Your task to perform on an android device: Clear all items from cart on bestbuy. Search for "logitech g903" on bestbuy, select the first entry, add it to the cart, then select checkout. Image 0: 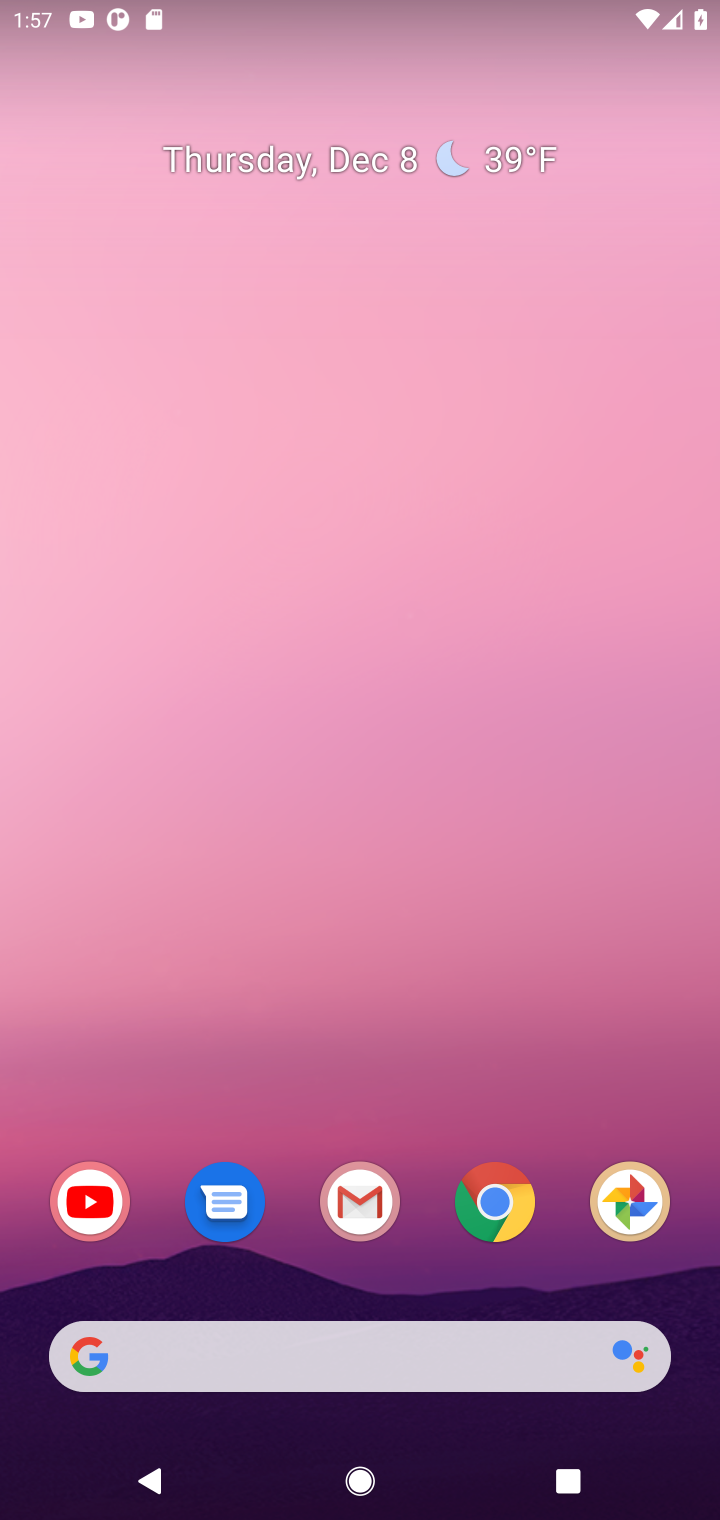
Step 0: click (509, 1190)
Your task to perform on an android device: Clear all items from cart on bestbuy. Search for "logitech g903" on bestbuy, select the first entry, add it to the cart, then select checkout. Image 1: 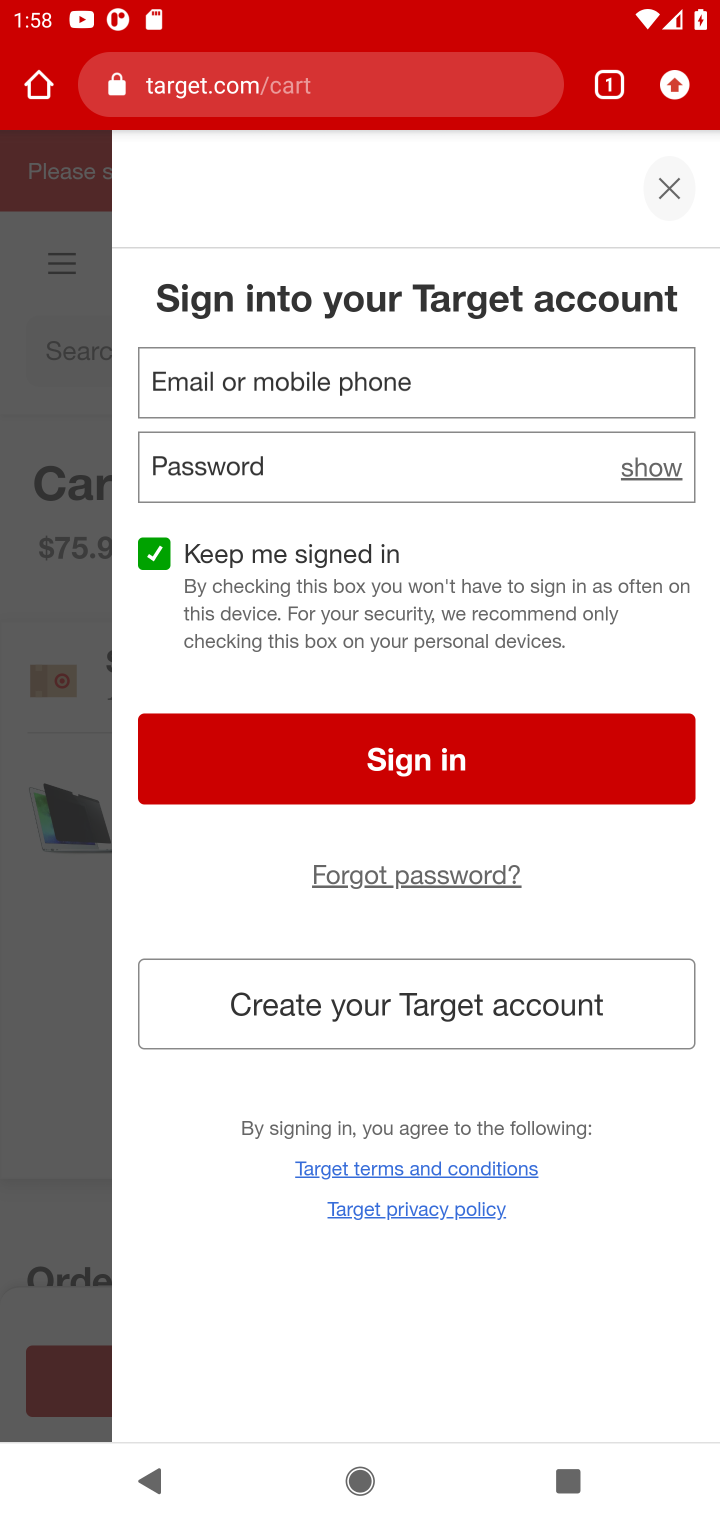
Step 1: click (36, 98)
Your task to perform on an android device: Clear all items from cart on bestbuy. Search for "logitech g903" on bestbuy, select the first entry, add it to the cart, then select checkout. Image 2: 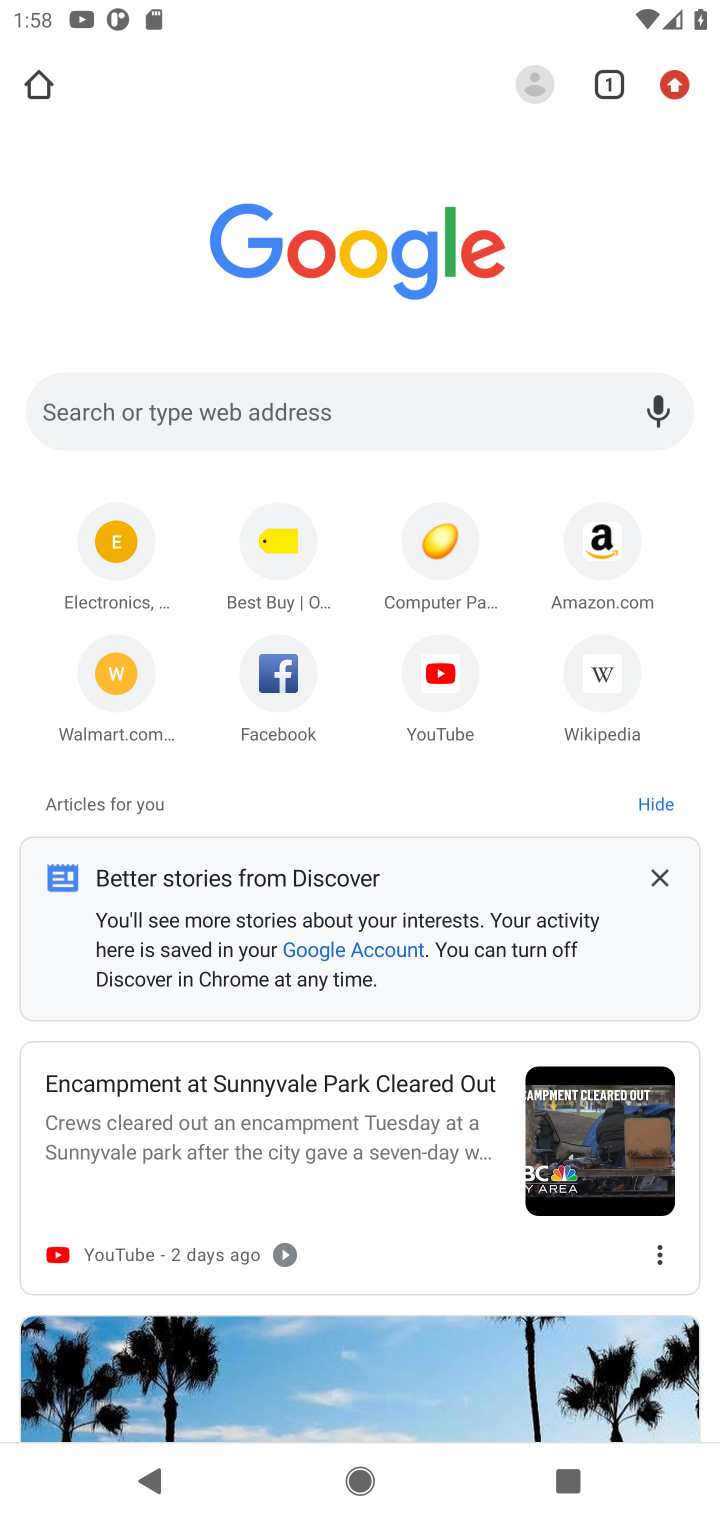
Step 2: click (273, 543)
Your task to perform on an android device: Clear all items from cart on bestbuy. Search for "logitech g903" on bestbuy, select the first entry, add it to the cart, then select checkout. Image 3: 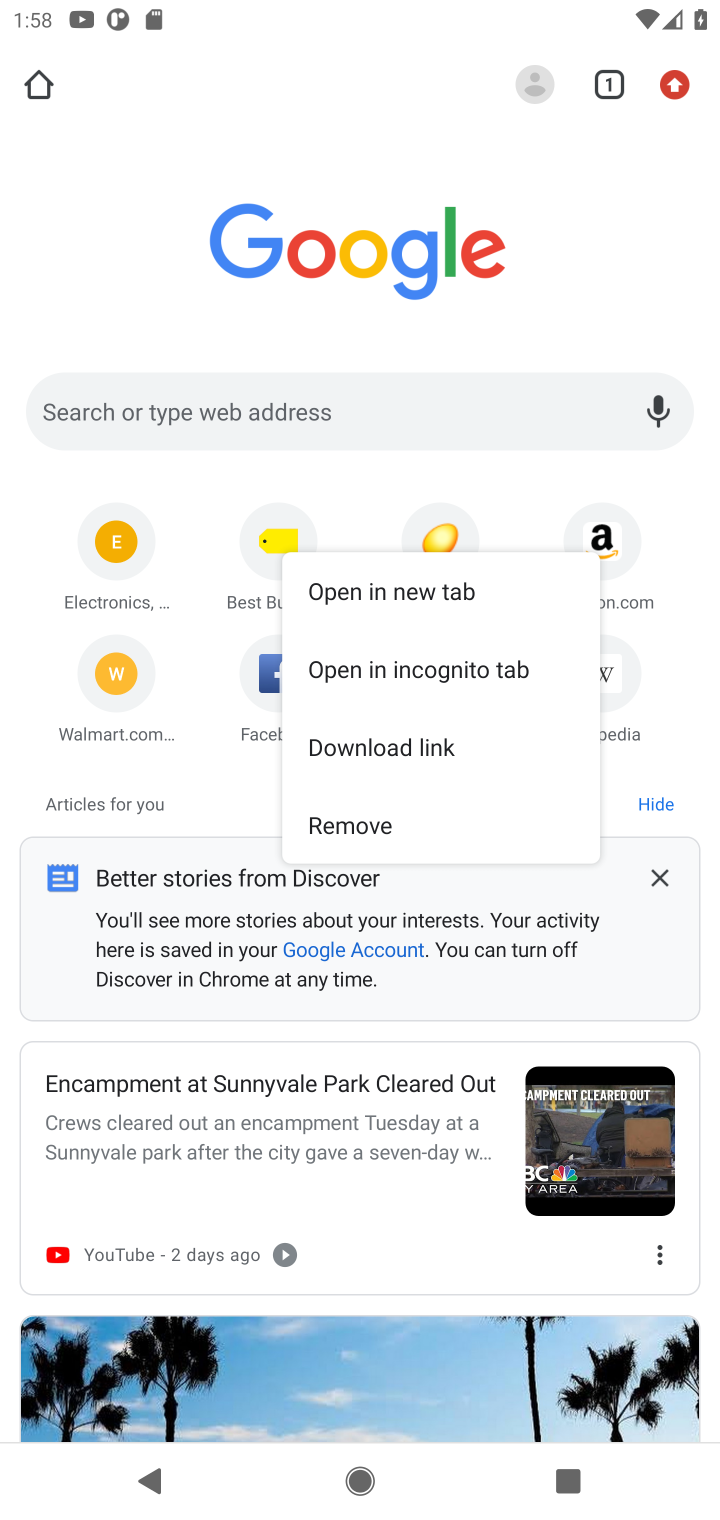
Step 3: click (281, 537)
Your task to perform on an android device: Clear all items from cart on bestbuy. Search for "logitech g903" on bestbuy, select the first entry, add it to the cart, then select checkout. Image 4: 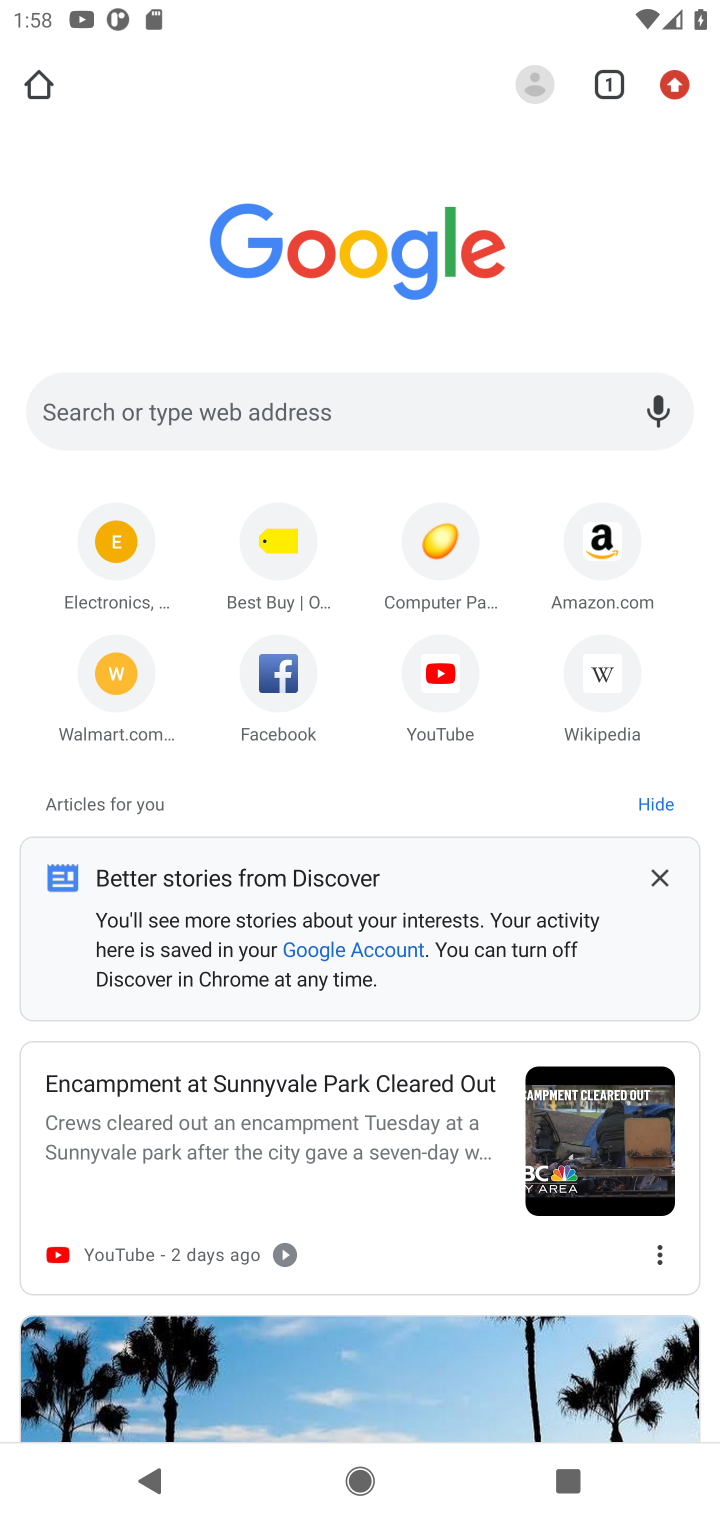
Step 4: click (279, 528)
Your task to perform on an android device: Clear all items from cart on bestbuy. Search for "logitech g903" on bestbuy, select the first entry, add it to the cart, then select checkout. Image 5: 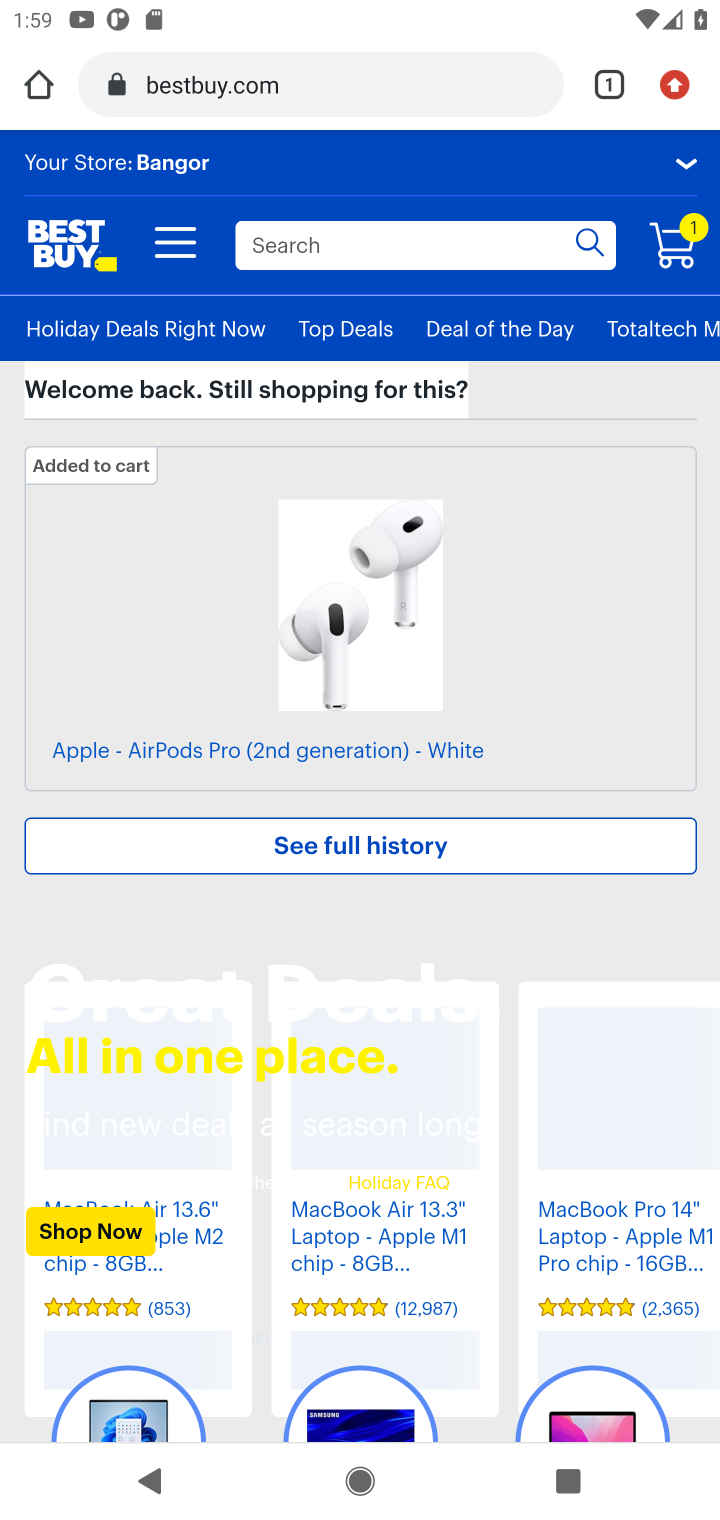
Step 5: click (664, 240)
Your task to perform on an android device: Clear all items from cart on bestbuy. Search for "logitech g903" on bestbuy, select the first entry, add it to the cart, then select checkout. Image 6: 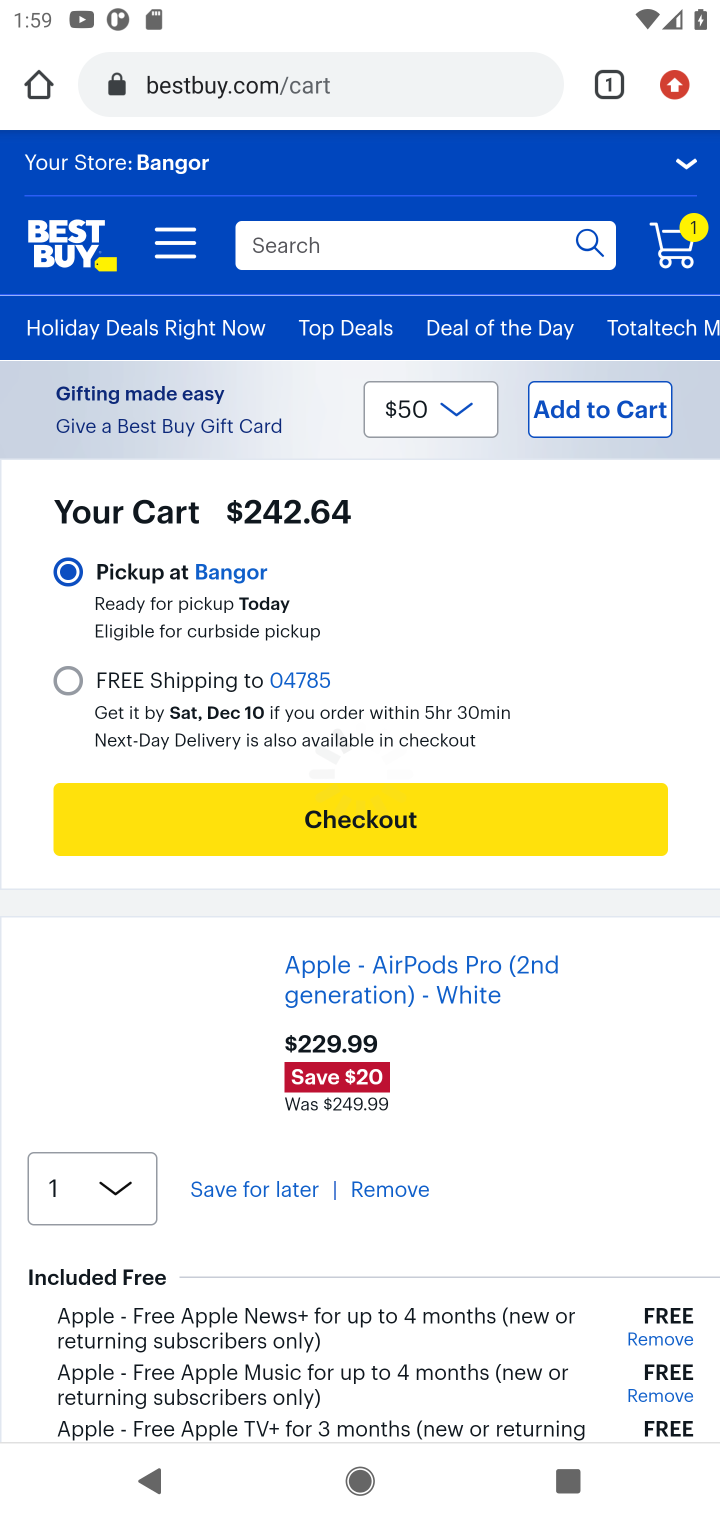
Step 6: click (673, 242)
Your task to perform on an android device: Clear all items from cart on bestbuy. Search for "logitech g903" on bestbuy, select the first entry, add it to the cart, then select checkout. Image 7: 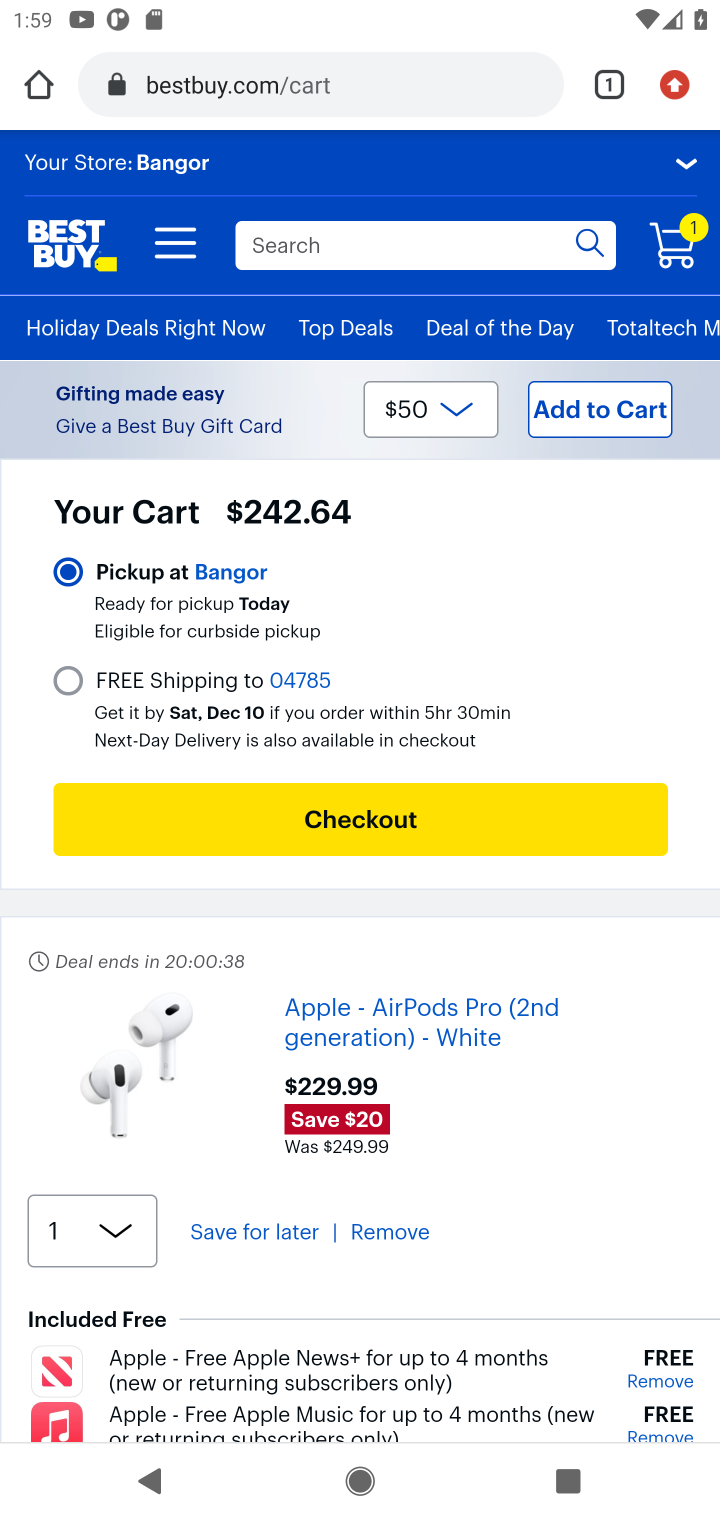
Step 7: click (389, 1228)
Your task to perform on an android device: Clear all items from cart on bestbuy. Search for "logitech g903" on bestbuy, select the first entry, add it to the cart, then select checkout. Image 8: 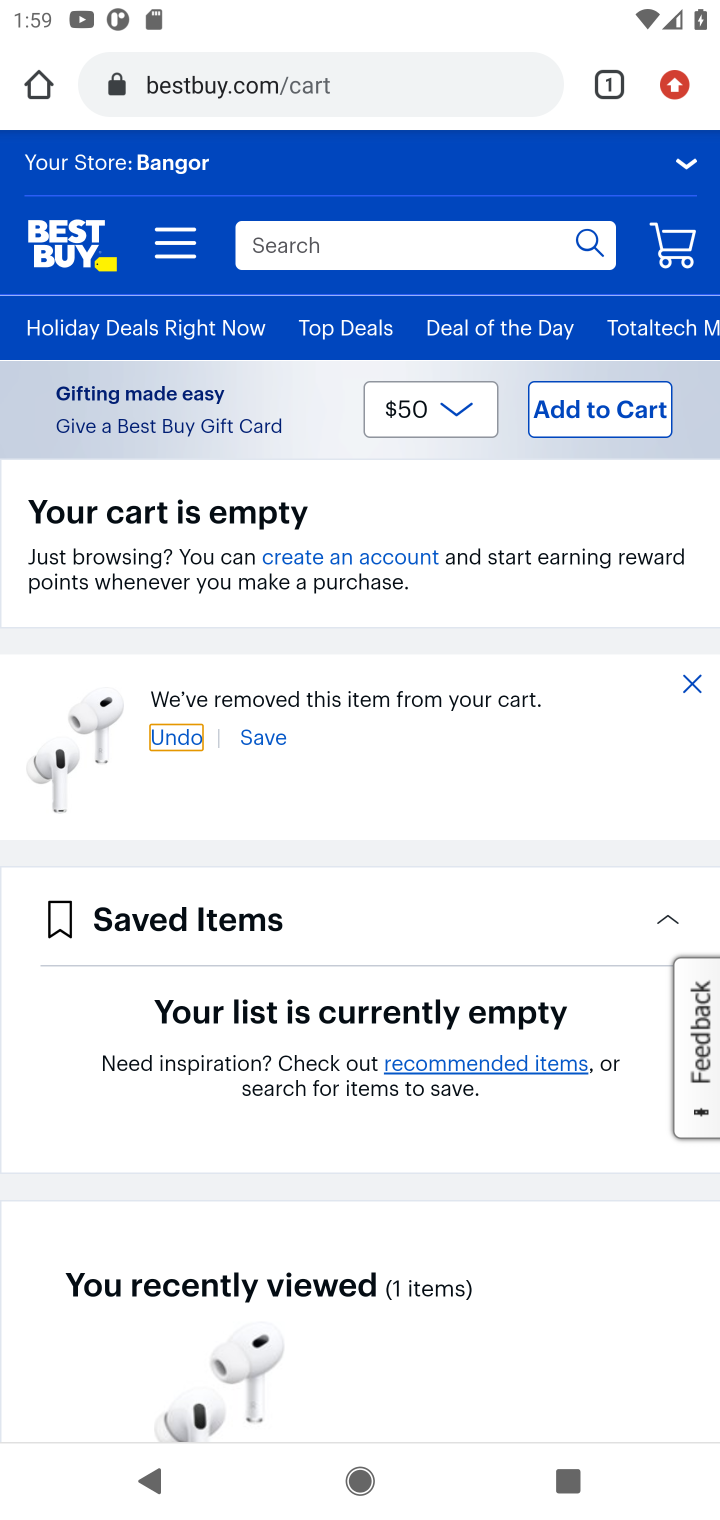
Step 8: click (546, 242)
Your task to perform on an android device: Clear all items from cart on bestbuy. Search for "logitech g903" on bestbuy, select the first entry, add it to the cart, then select checkout. Image 9: 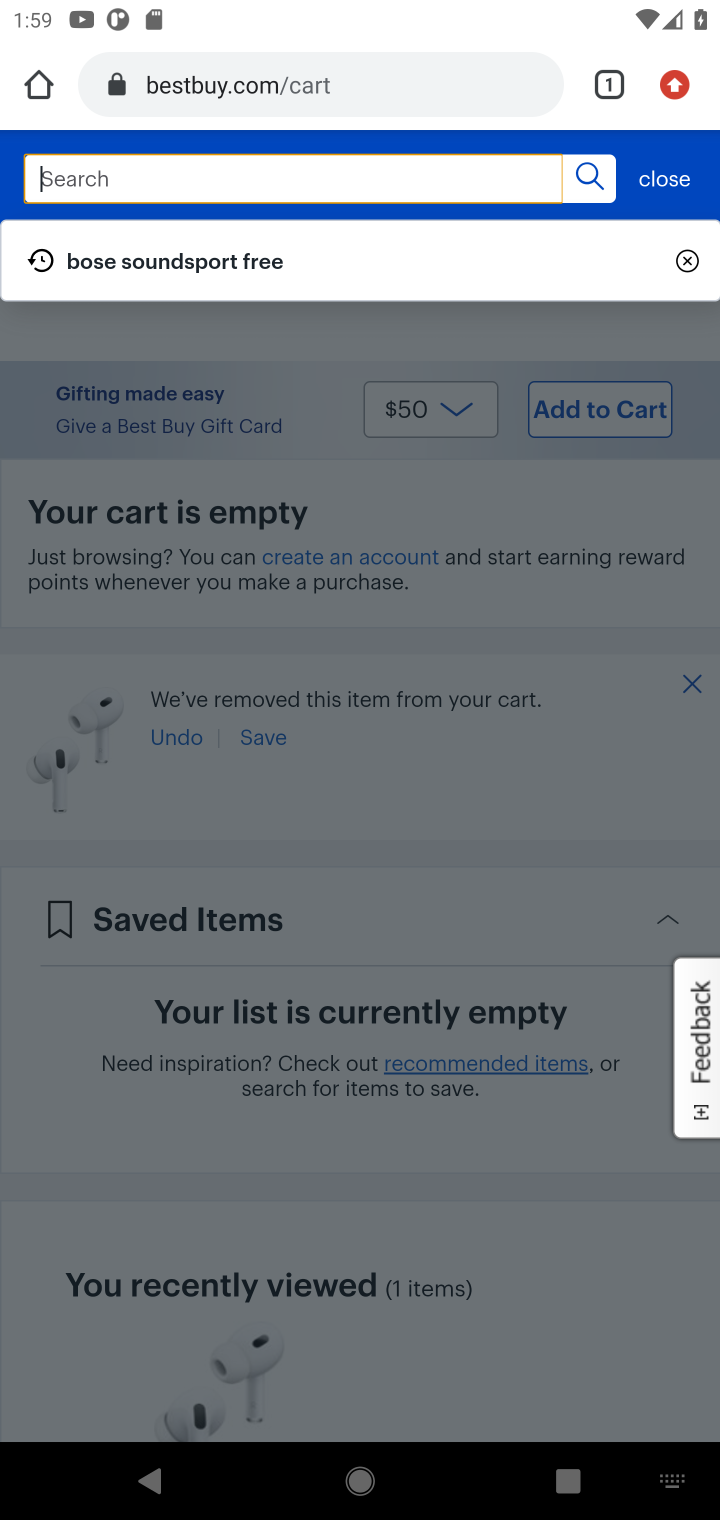
Step 9: press enter
Your task to perform on an android device: Clear all items from cart on bestbuy. Search for "logitech g903" on bestbuy, select the first entry, add it to the cart, then select checkout. Image 10: 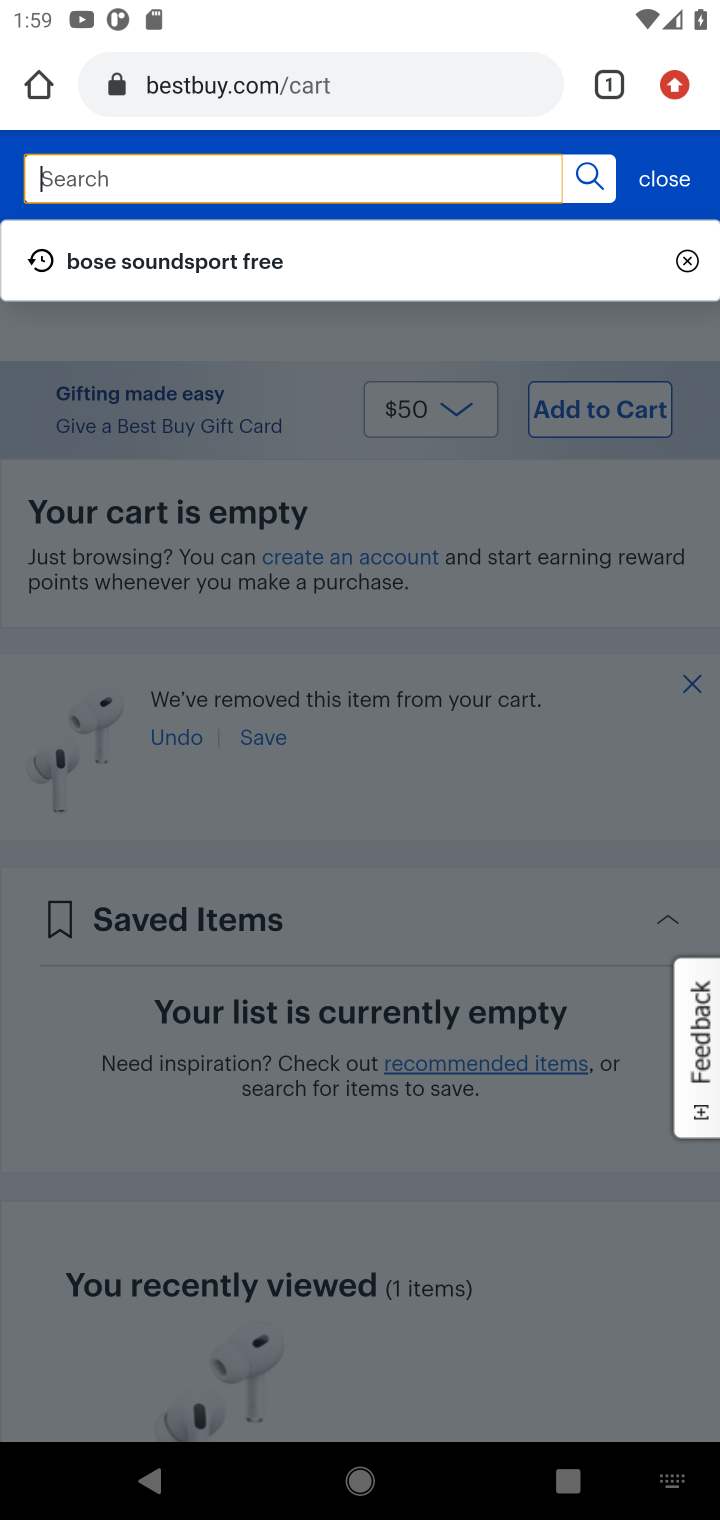
Step 10: type "logitech g903"
Your task to perform on an android device: Clear all items from cart on bestbuy. Search for "logitech g903" on bestbuy, select the first entry, add it to the cart, then select checkout. Image 11: 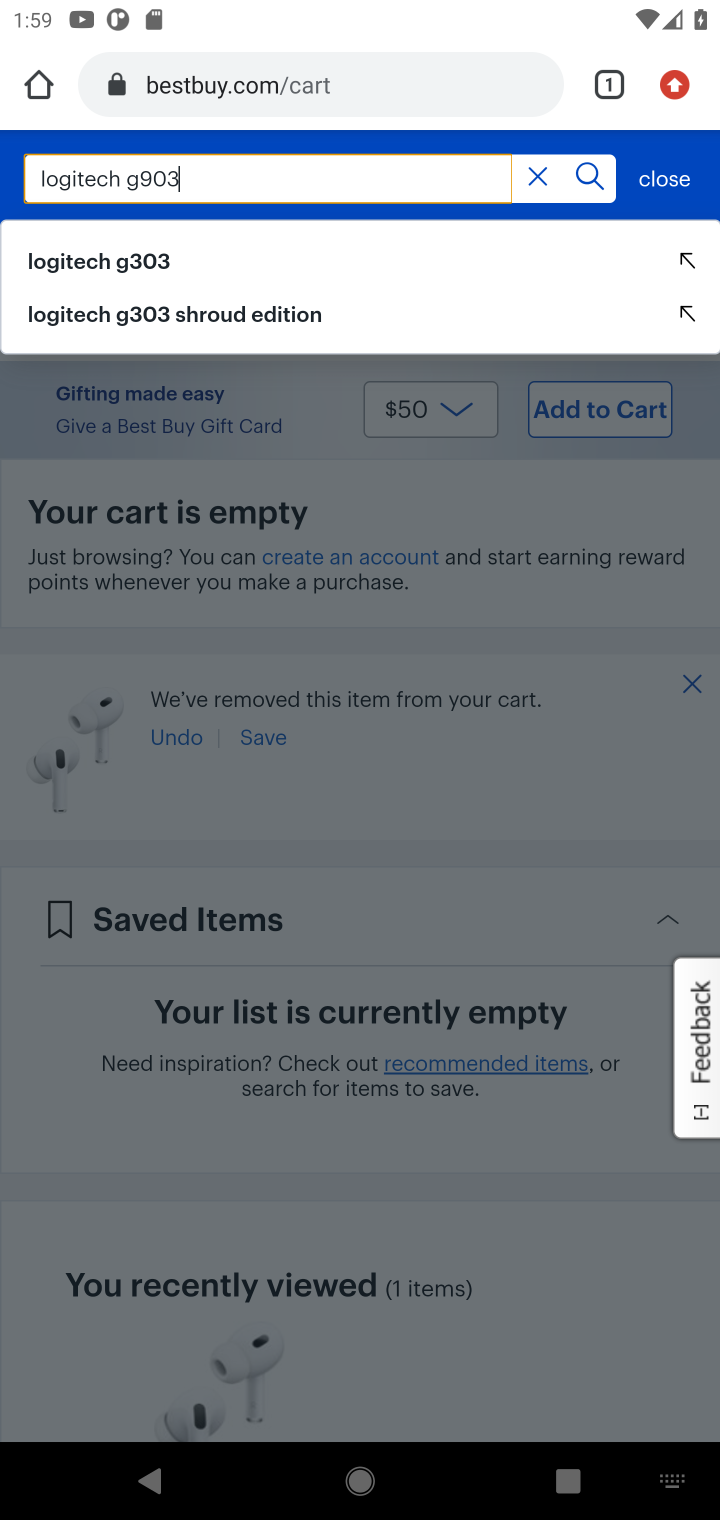
Step 11: click (145, 258)
Your task to perform on an android device: Clear all items from cart on bestbuy. Search for "logitech g903" on bestbuy, select the first entry, add it to the cart, then select checkout. Image 12: 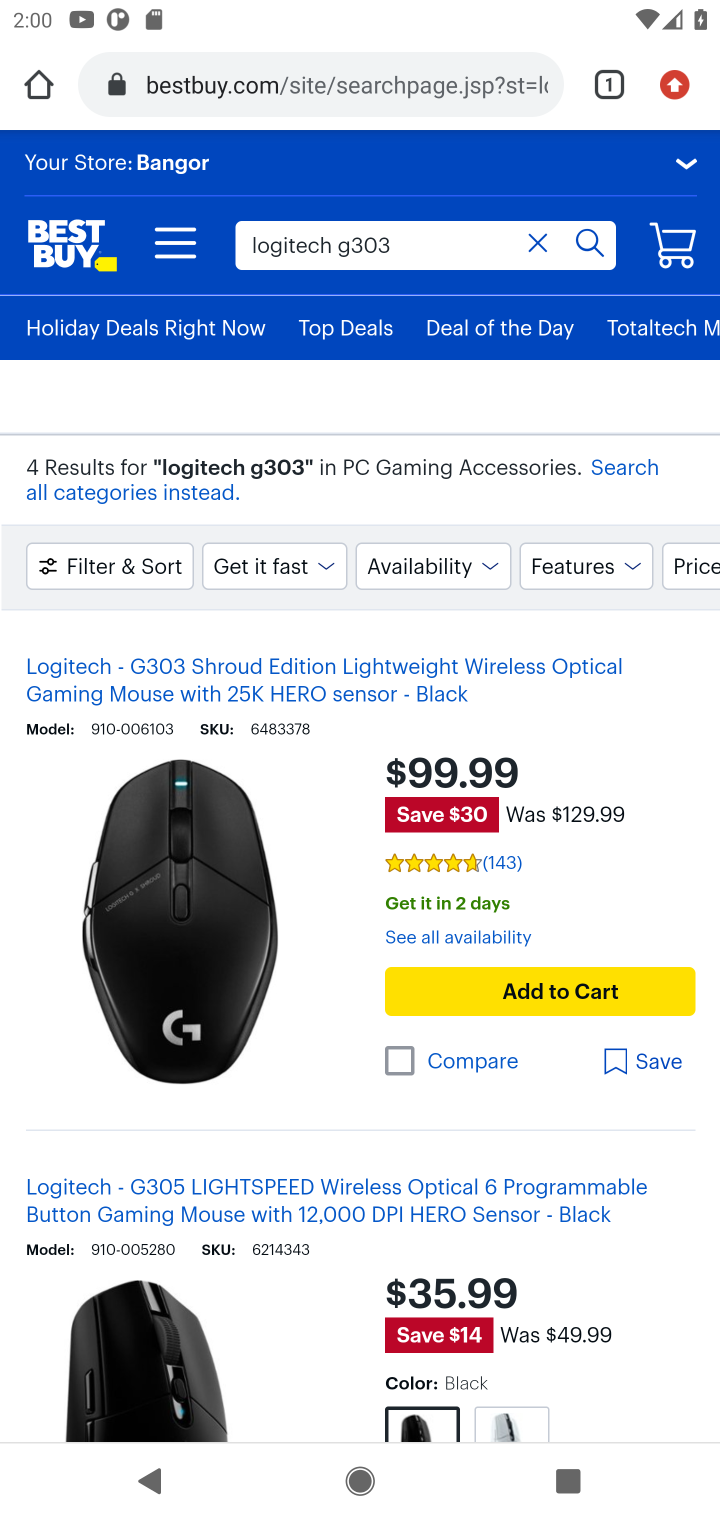
Step 12: click (188, 843)
Your task to perform on an android device: Clear all items from cart on bestbuy. Search for "logitech g903" on bestbuy, select the first entry, add it to the cart, then select checkout. Image 13: 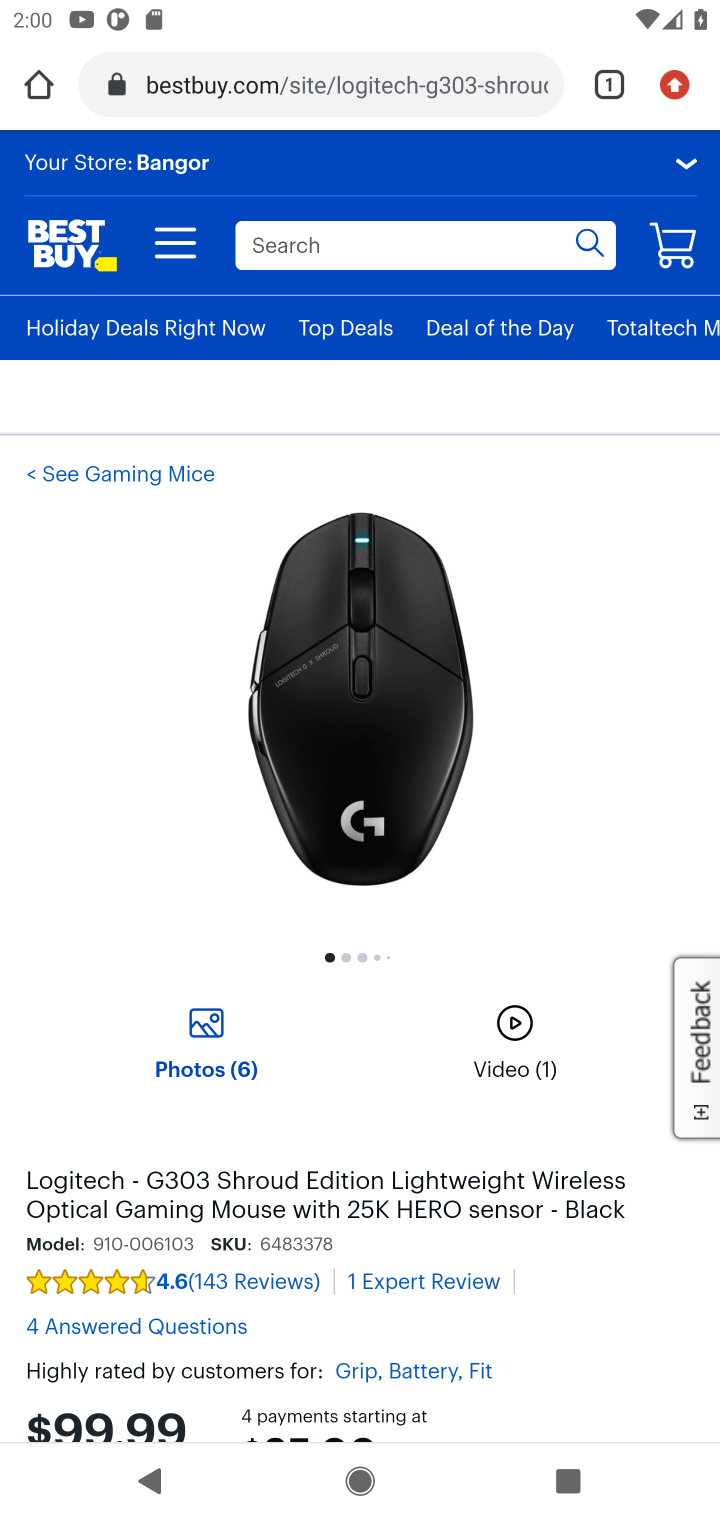
Step 13: drag from (499, 1175) to (464, 609)
Your task to perform on an android device: Clear all items from cart on bestbuy. Search for "logitech g903" on bestbuy, select the first entry, add it to the cart, then select checkout. Image 14: 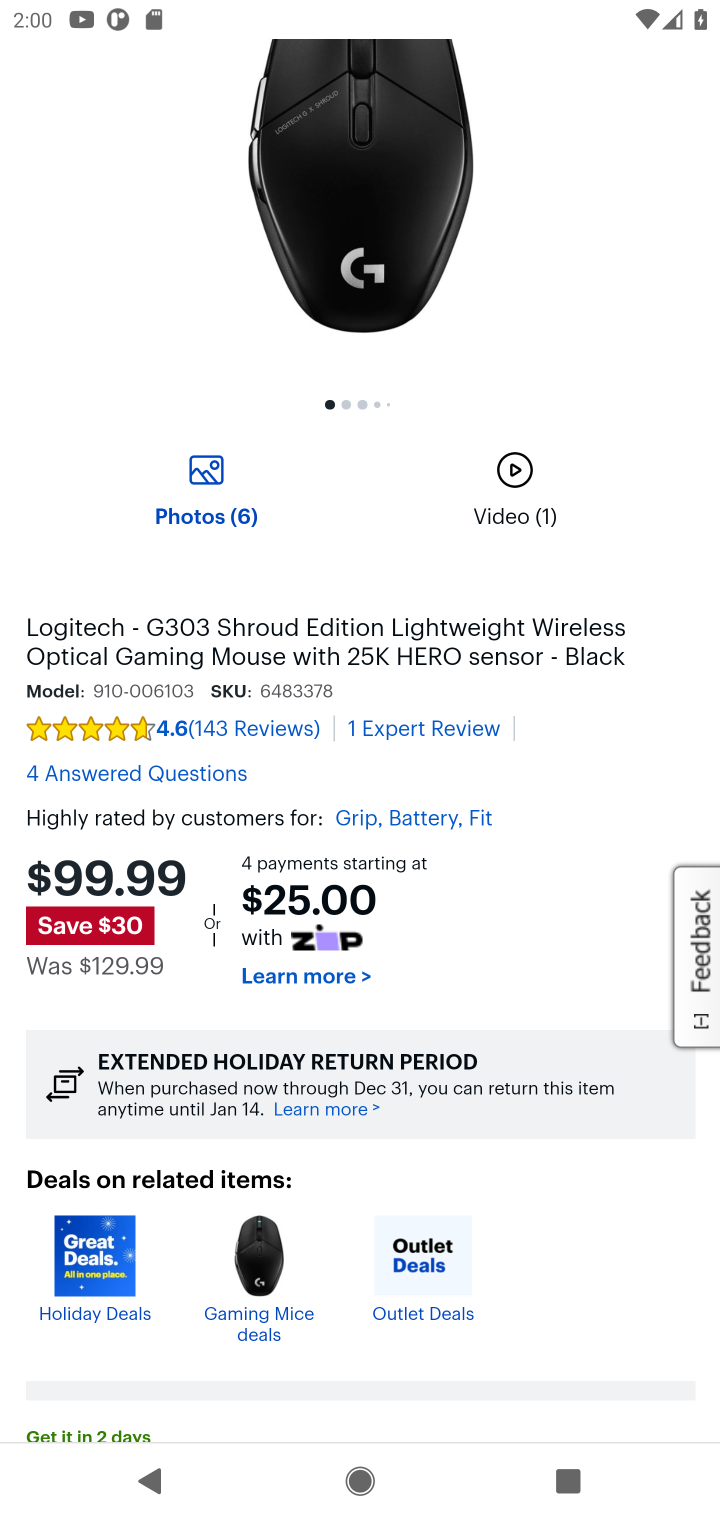
Step 14: drag from (600, 1159) to (587, 745)
Your task to perform on an android device: Clear all items from cart on bestbuy. Search for "logitech g903" on bestbuy, select the first entry, add it to the cart, then select checkout. Image 15: 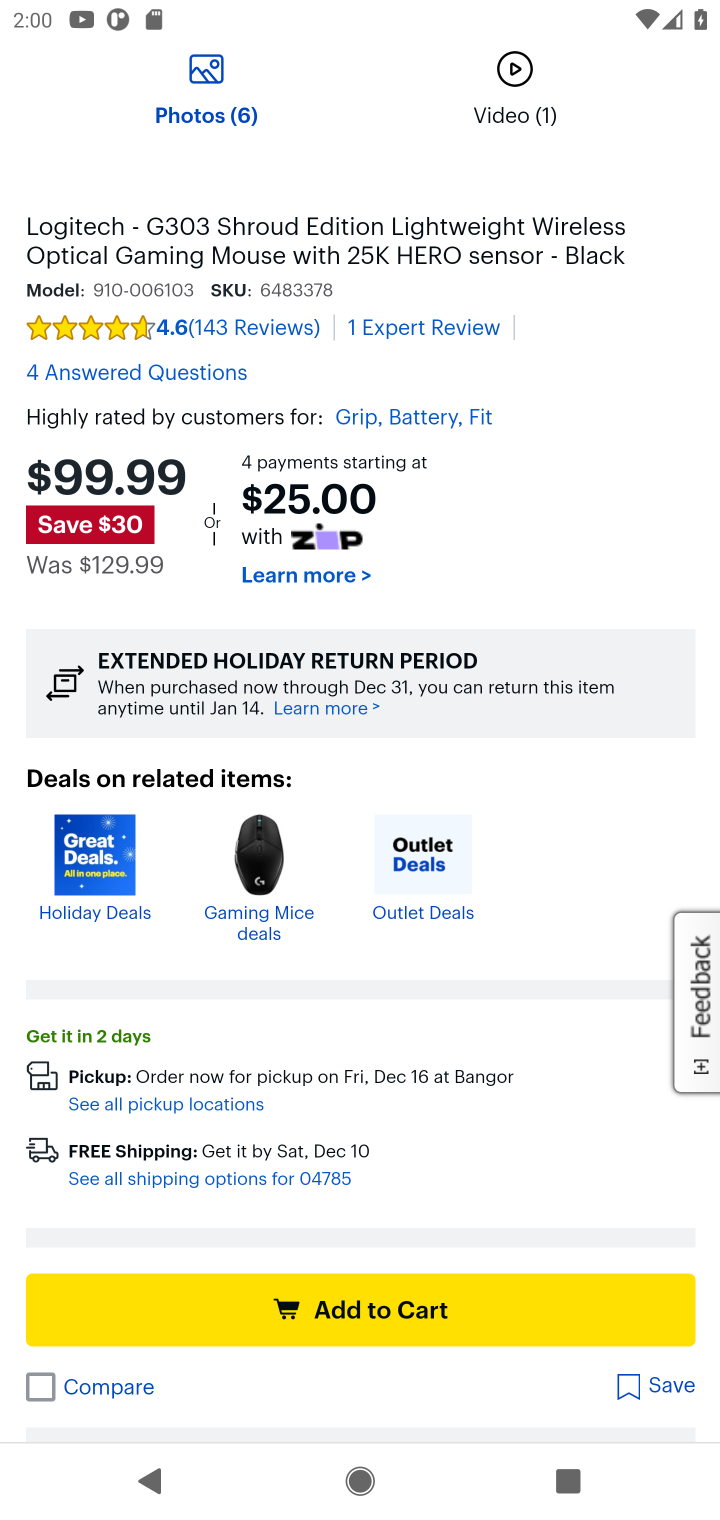
Step 15: click (394, 1304)
Your task to perform on an android device: Clear all items from cart on bestbuy. Search for "logitech g903" on bestbuy, select the first entry, add it to the cart, then select checkout. Image 16: 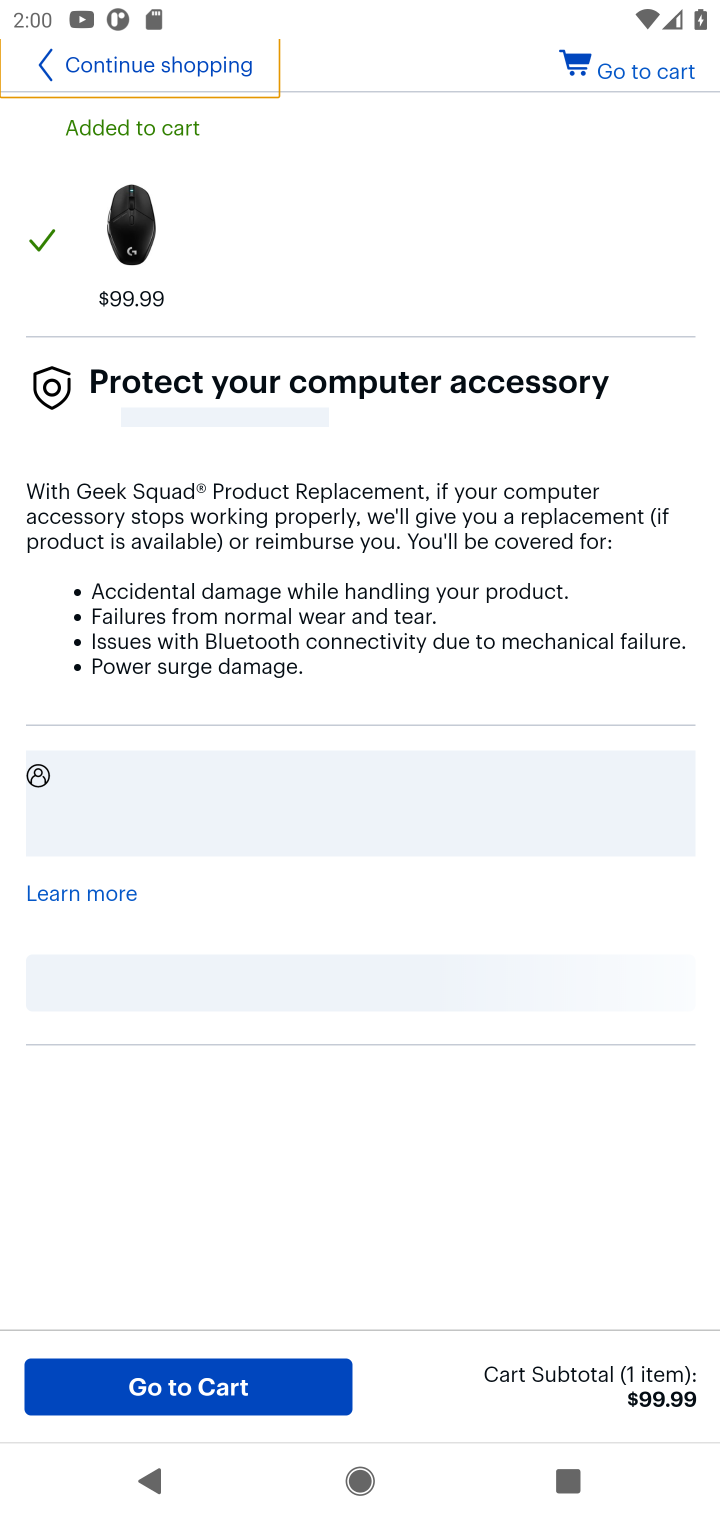
Step 16: click (240, 1382)
Your task to perform on an android device: Clear all items from cart on bestbuy. Search for "logitech g903" on bestbuy, select the first entry, add it to the cart, then select checkout. Image 17: 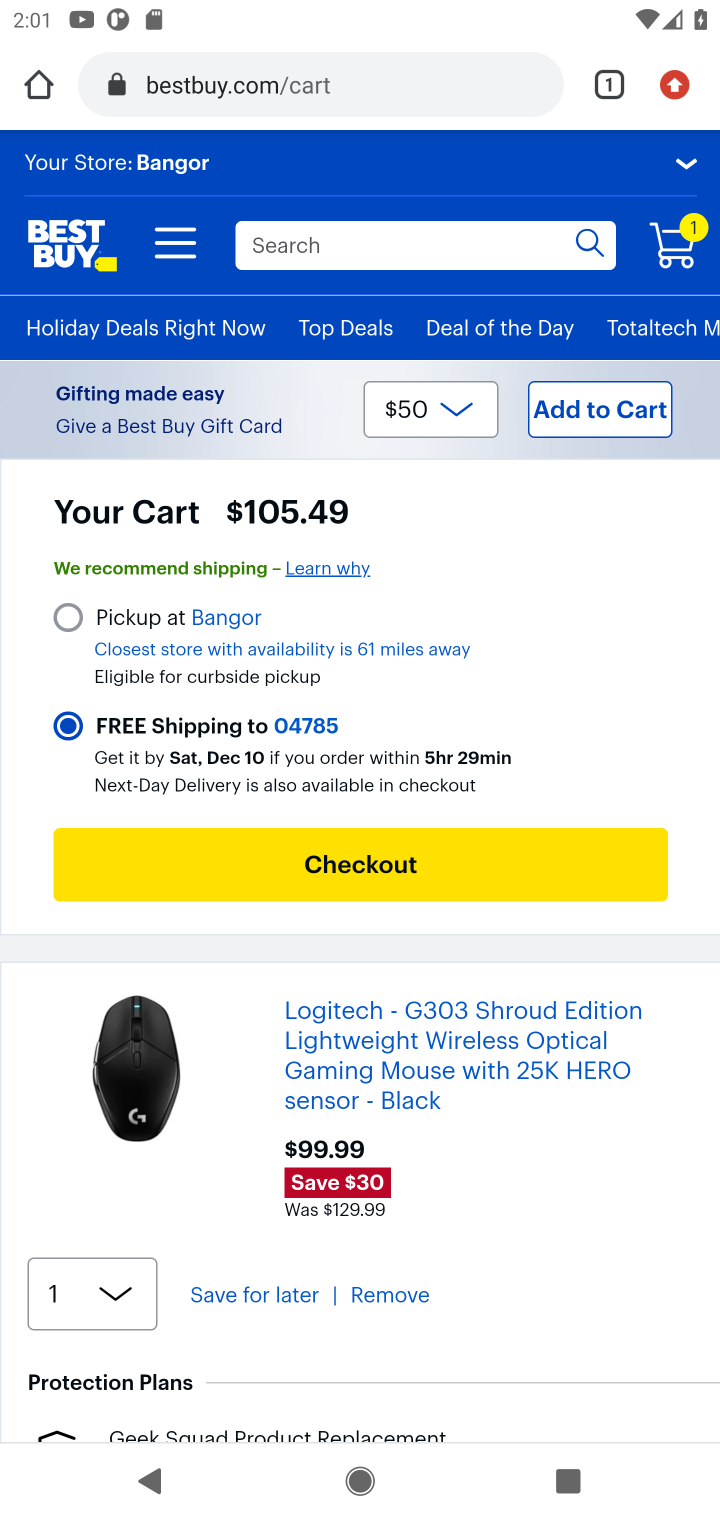
Step 17: click (357, 849)
Your task to perform on an android device: Clear all items from cart on bestbuy. Search for "logitech g903" on bestbuy, select the first entry, add it to the cart, then select checkout. Image 18: 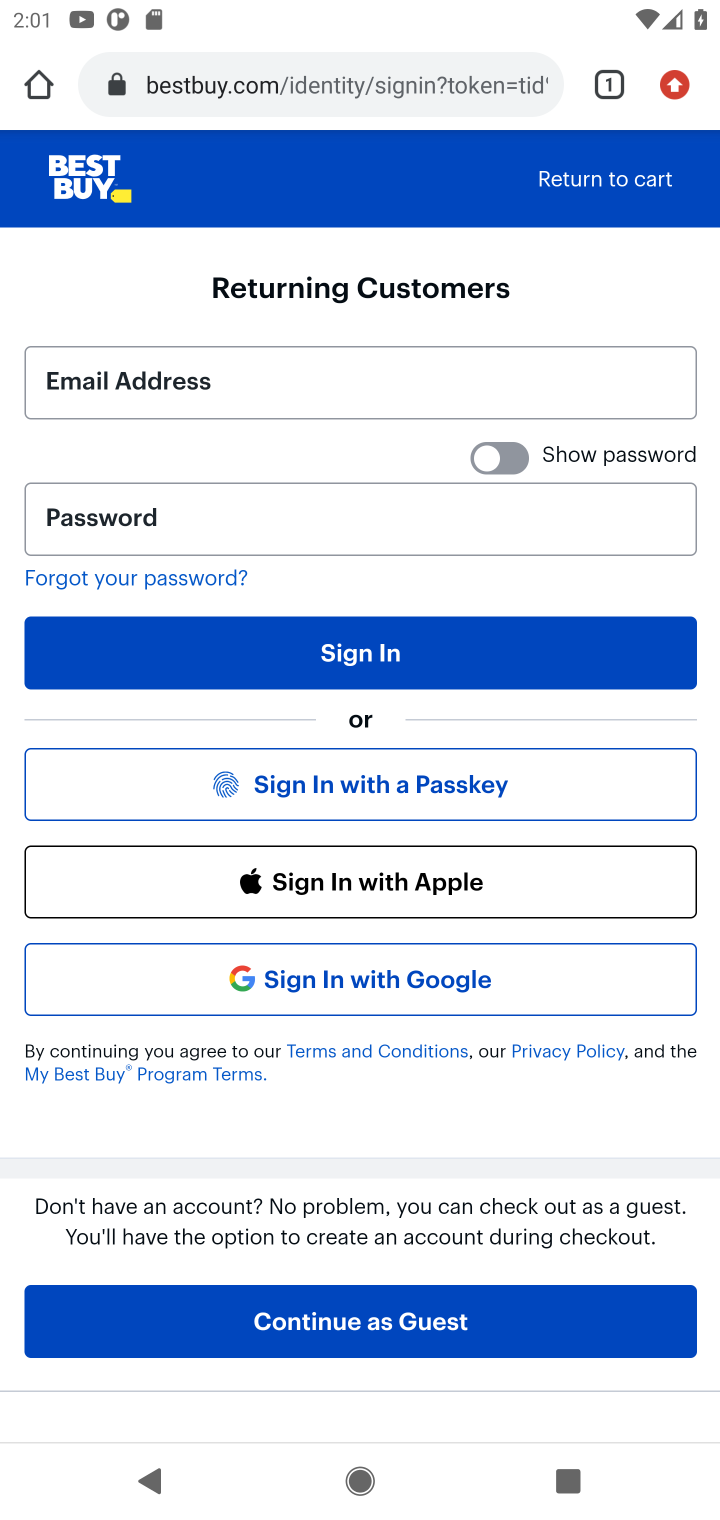
Step 18: task complete